Your task to perform on an android device: Open calendar and show me the first week of next month Image 0: 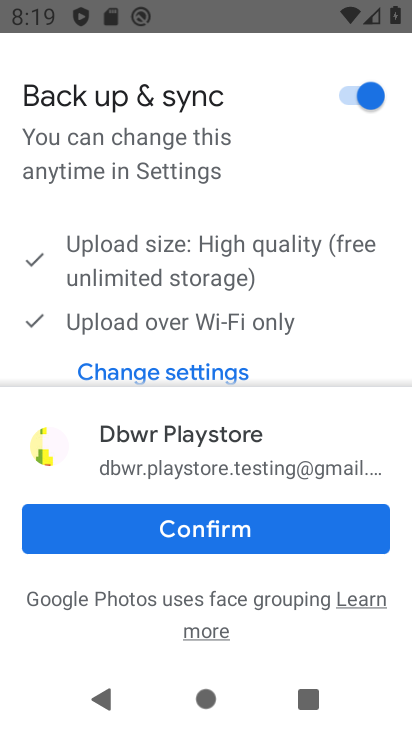
Step 0: press home button
Your task to perform on an android device: Open calendar and show me the first week of next month Image 1: 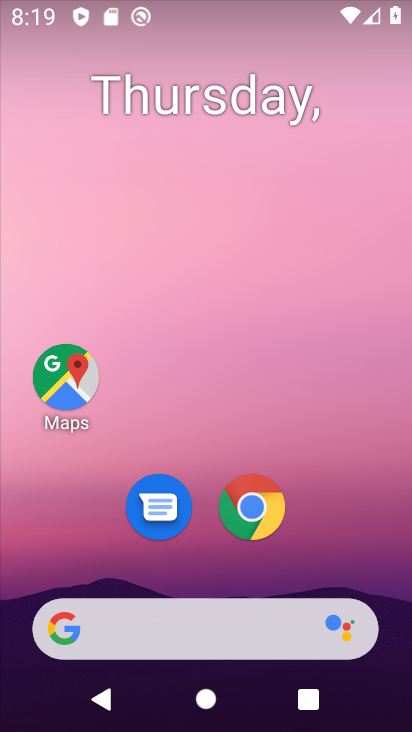
Step 1: drag from (213, 559) to (312, 99)
Your task to perform on an android device: Open calendar and show me the first week of next month Image 2: 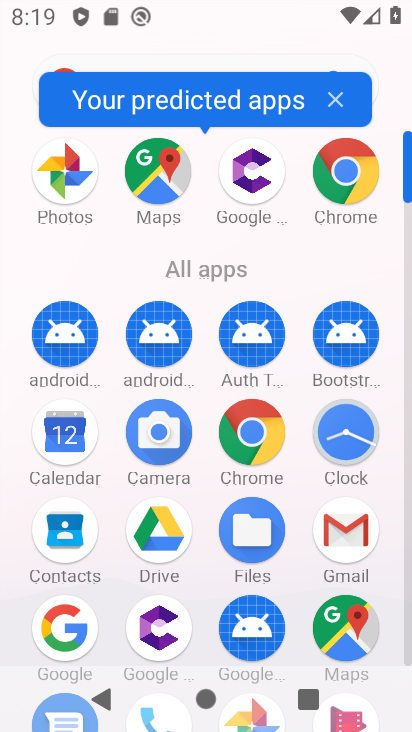
Step 2: click (52, 467)
Your task to perform on an android device: Open calendar and show me the first week of next month Image 3: 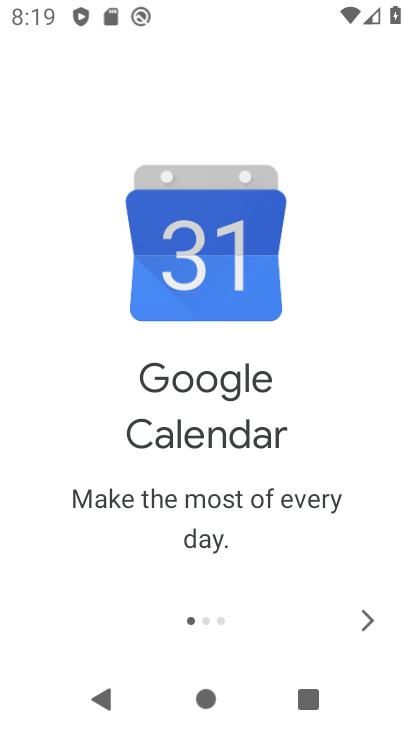
Step 3: click (370, 612)
Your task to perform on an android device: Open calendar and show me the first week of next month Image 4: 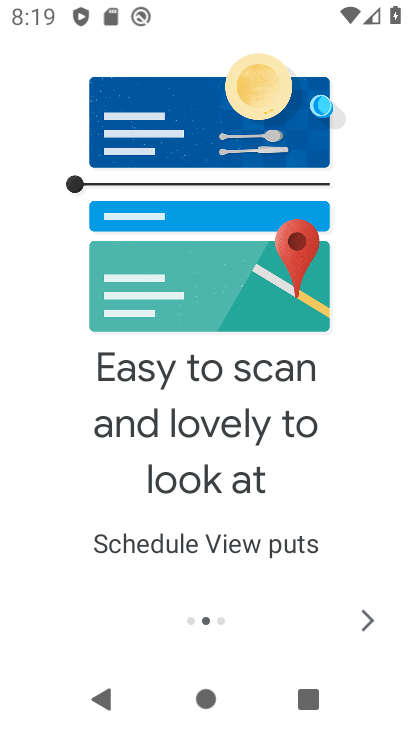
Step 4: click (368, 621)
Your task to perform on an android device: Open calendar and show me the first week of next month Image 5: 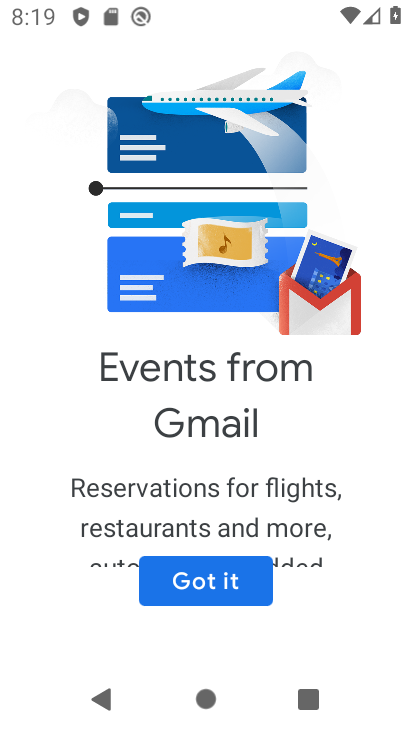
Step 5: click (233, 602)
Your task to perform on an android device: Open calendar and show me the first week of next month Image 6: 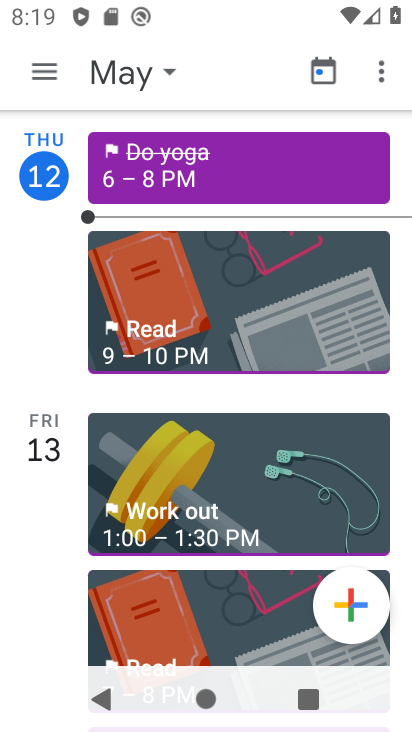
Step 6: click (123, 72)
Your task to perform on an android device: Open calendar and show me the first week of next month Image 7: 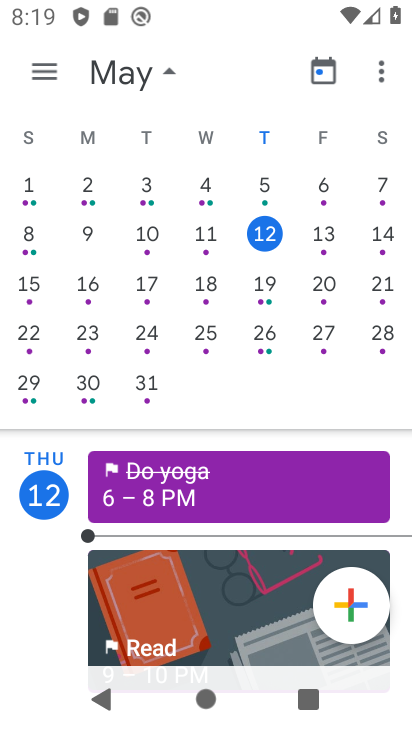
Step 7: drag from (298, 296) to (0, 254)
Your task to perform on an android device: Open calendar and show me the first week of next month Image 8: 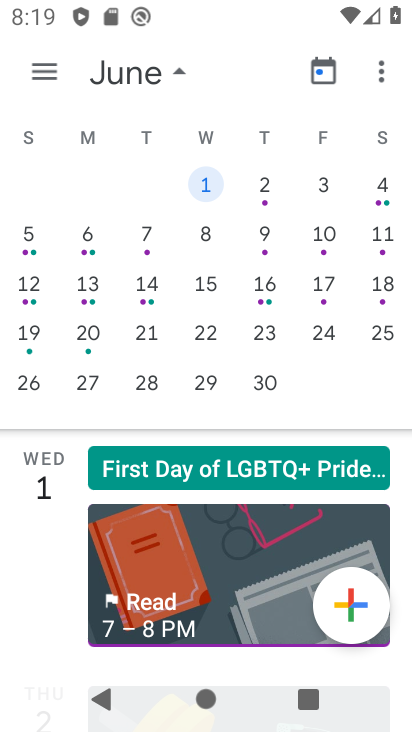
Step 8: click (44, 81)
Your task to perform on an android device: Open calendar and show me the first week of next month Image 9: 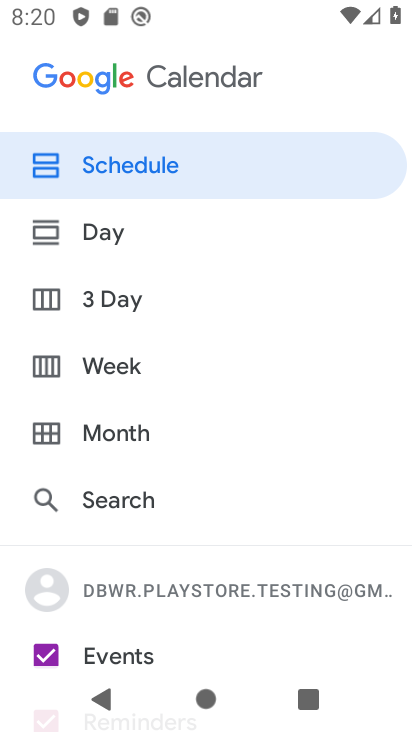
Step 9: click (116, 365)
Your task to perform on an android device: Open calendar and show me the first week of next month Image 10: 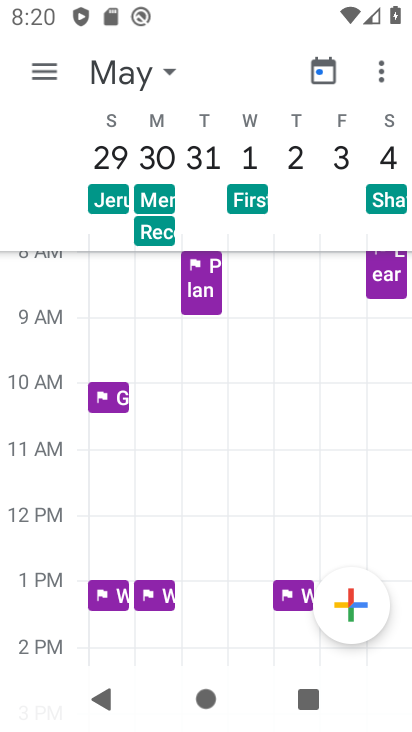
Step 10: task complete